Your task to perform on an android device: turn off location Image 0: 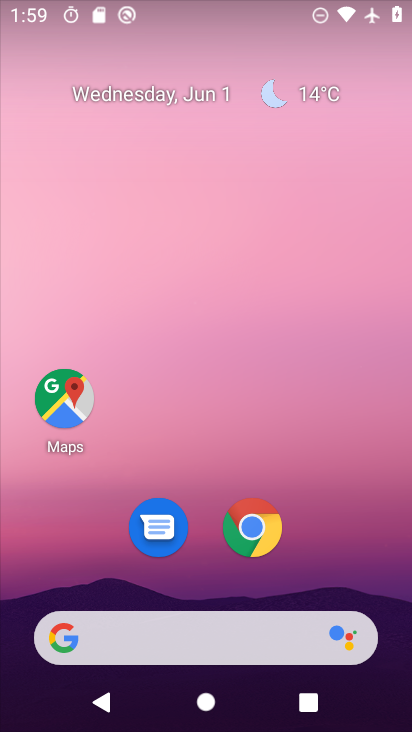
Step 0: drag from (189, 677) to (246, 127)
Your task to perform on an android device: turn off location Image 1: 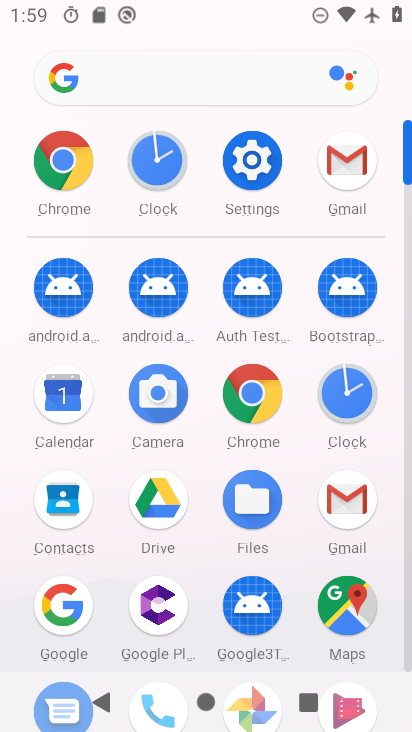
Step 1: click (258, 167)
Your task to perform on an android device: turn off location Image 2: 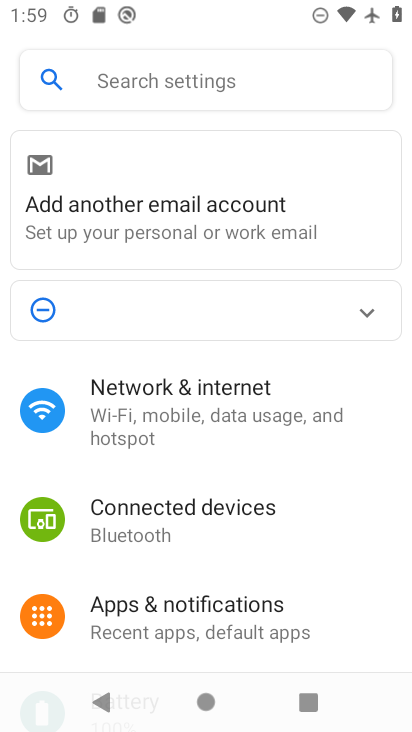
Step 2: drag from (157, 546) to (174, 202)
Your task to perform on an android device: turn off location Image 3: 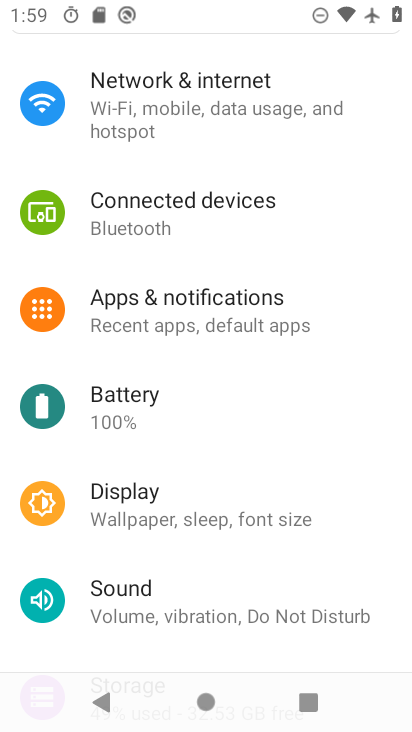
Step 3: drag from (195, 533) to (200, 170)
Your task to perform on an android device: turn off location Image 4: 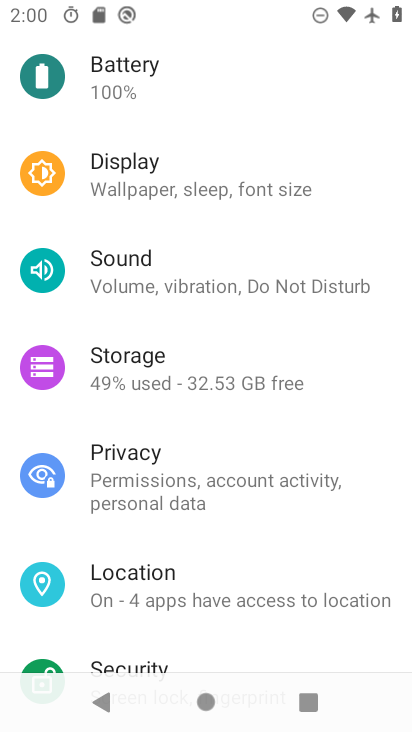
Step 4: click (171, 602)
Your task to perform on an android device: turn off location Image 5: 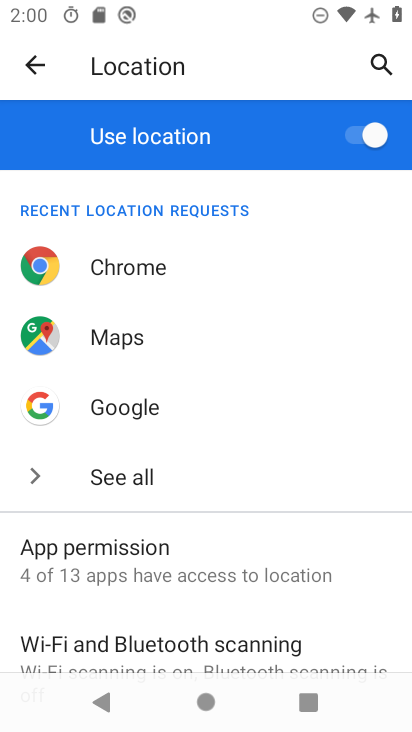
Step 5: drag from (178, 564) to (165, 310)
Your task to perform on an android device: turn off location Image 6: 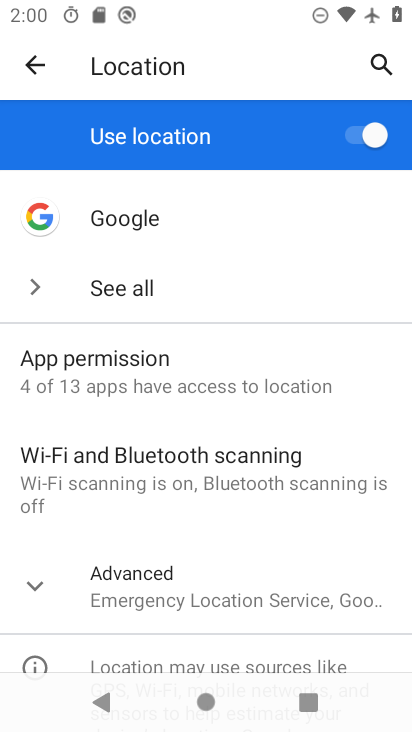
Step 6: click (362, 141)
Your task to perform on an android device: turn off location Image 7: 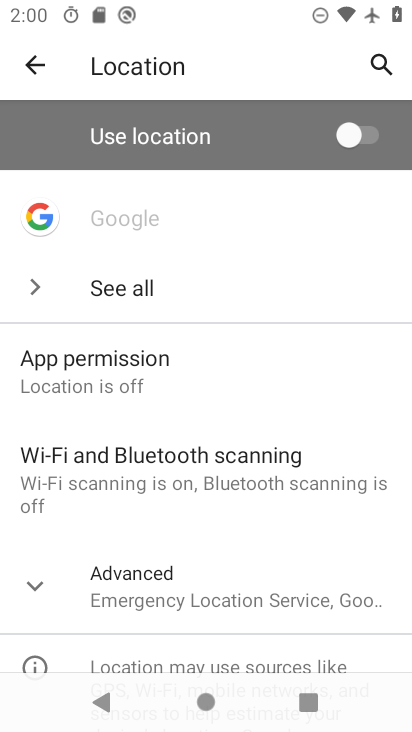
Step 7: task complete